Your task to perform on an android device: delete browsing data in the chrome app Image 0: 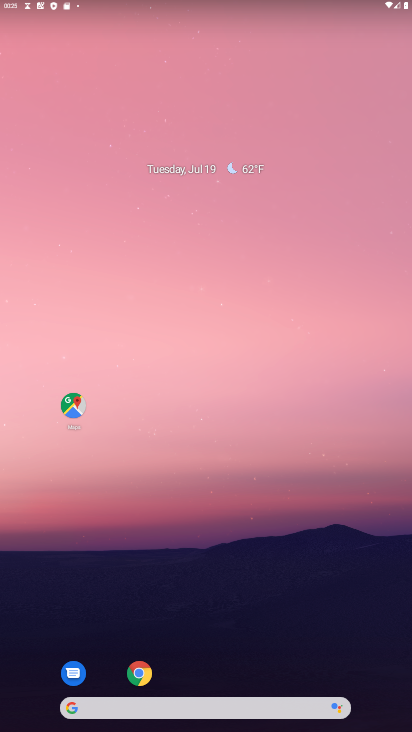
Step 0: drag from (200, 656) to (216, 123)
Your task to perform on an android device: delete browsing data in the chrome app Image 1: 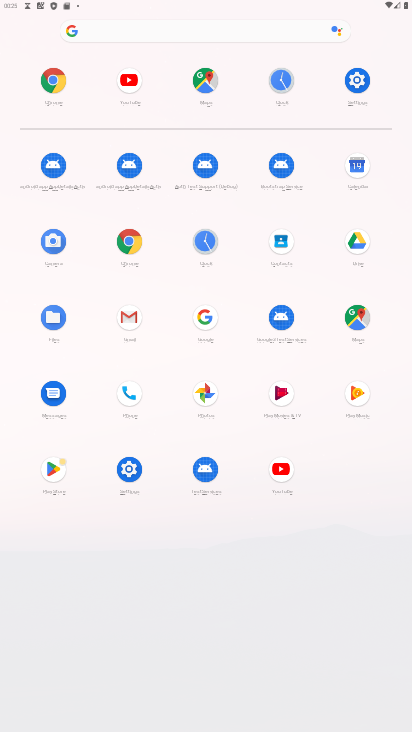
Step 1: click (128, 244)
Your task to perform on an android device: delete browsing data in the chrome app Image 2: 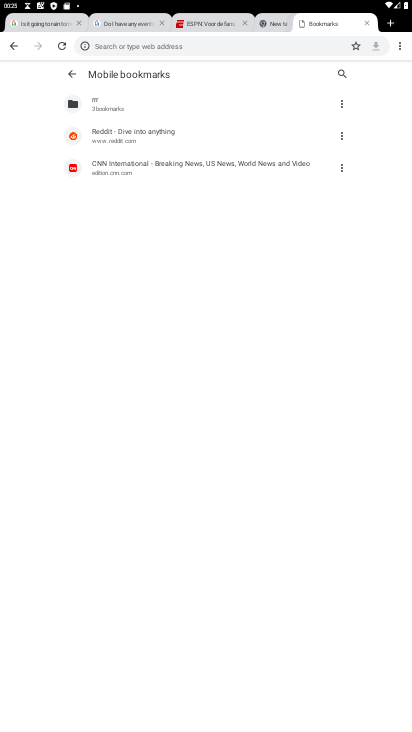
Step 2: click (400, 44)
Your task to perform on an android device: delete browsing data in the chrome app Image 3: 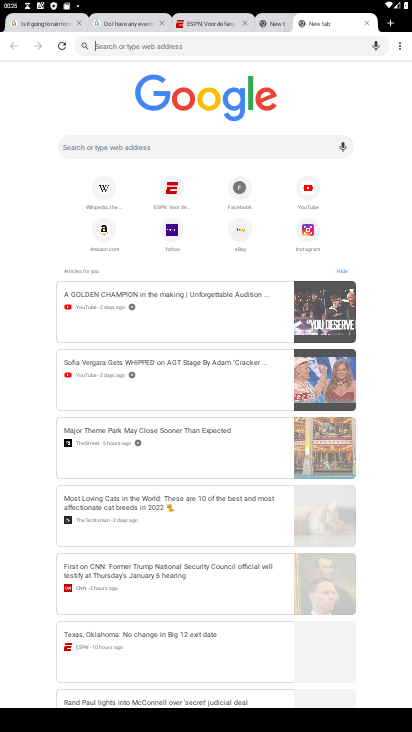
Step 3: click (402, 37)
Your task to perform on an android device: delete browsing data in the chrome app Image 4: 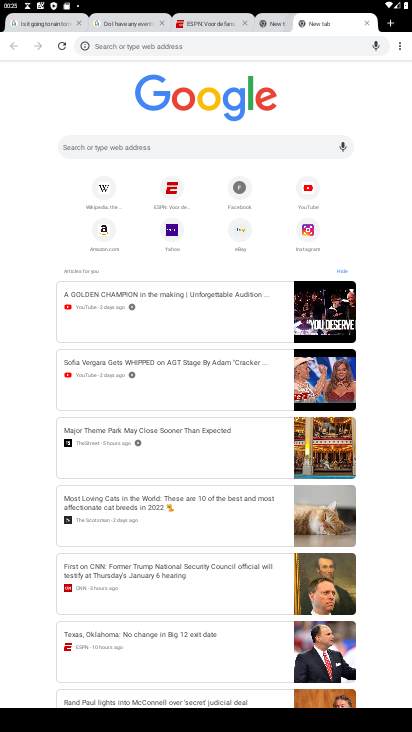
Step 4: click (402, 46)
Your task to perform on an android device: delete browsing data in the chrome app Image 5: 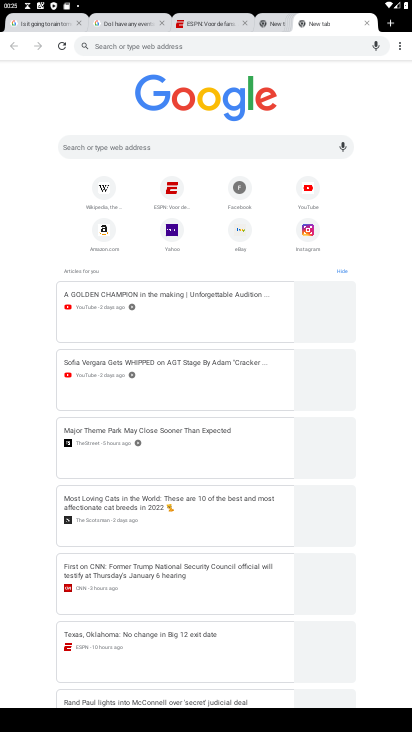
Step 5: click (402, 47)
Your task to perform on an android device: delete browsing data in the chrome app Image 6: 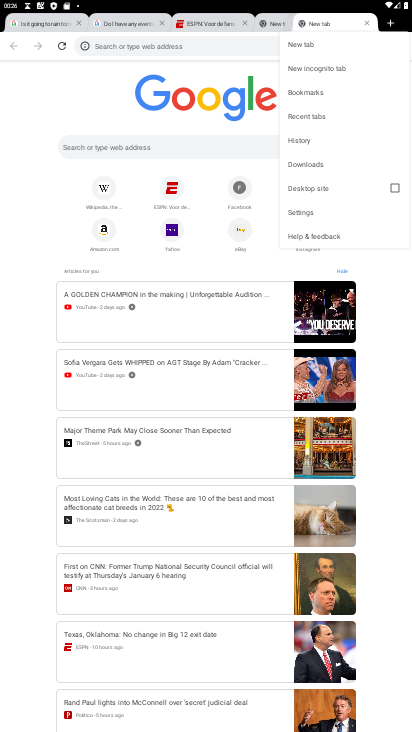
Step 6: click (326, 211)
Your task to perform on an android device: delete browsing data in the chrome app Image 7: 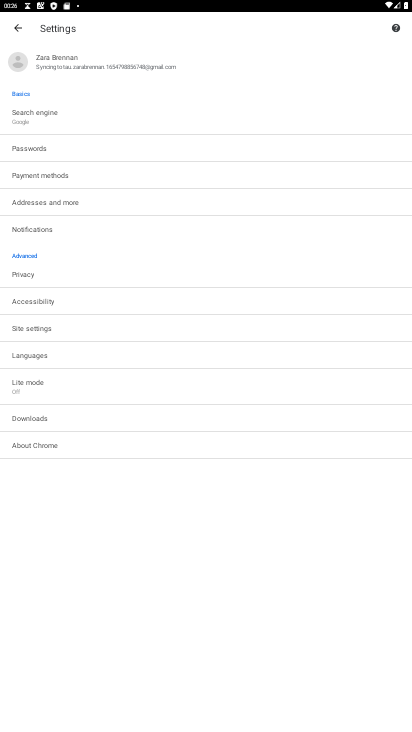
Step 7: click (59, 330)
Your task to perform on an android device: delete browsing data in the chrome app Image 8: 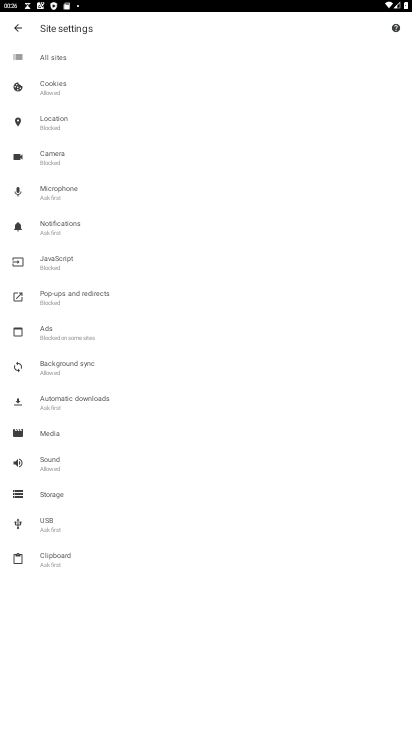
Step 8: click (70, 79)
Your task to perform on an android device: delete browsing data in the chrome app Image 9: 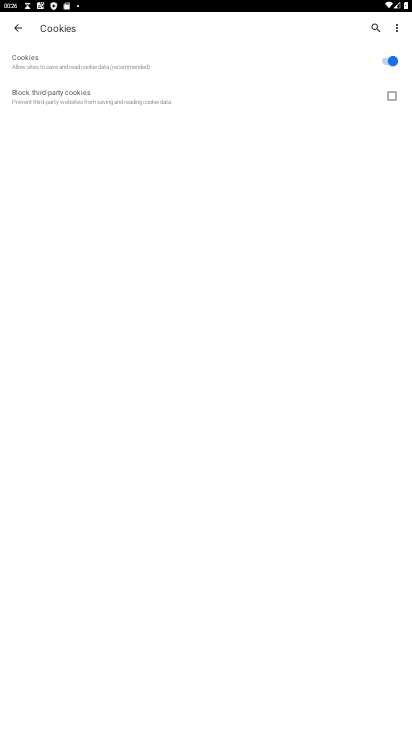
Step 9: click (22, 20)
Your task to perform on an android device: delete browsing data in the chrome app Image 10: 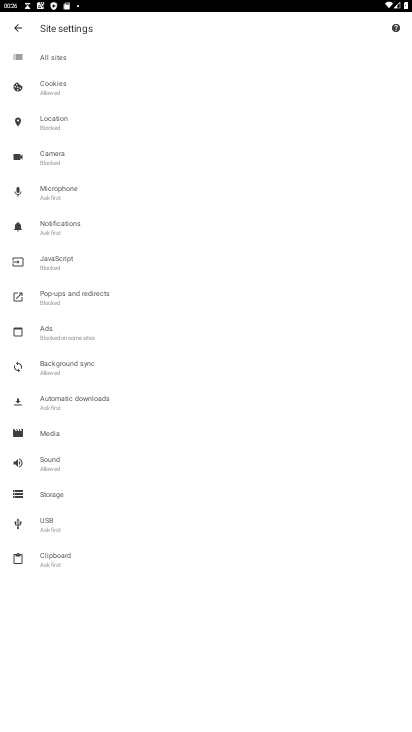
Step 10: click (12, 31)
Your task to perform on an android device: delete browsing data in the chrome app Image 11: 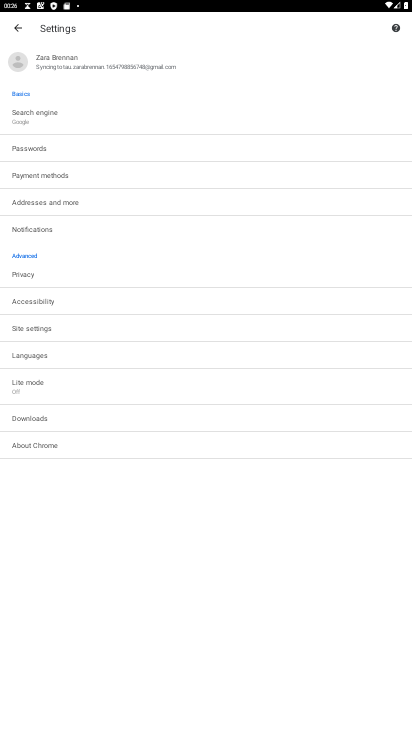
Step 11: click (34, 268)
Your task to perform on an android device: delete browsing data in the chrome app Image 12: 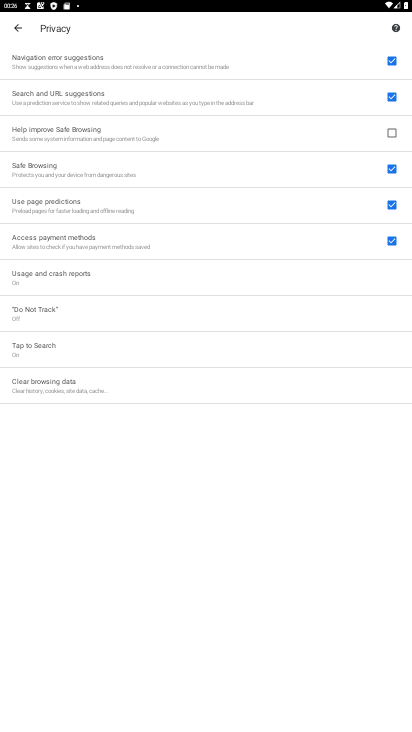
Step 12: click (109, 381)
Your task to perform on an android device: delete browsing data in the chrome app Image 13: 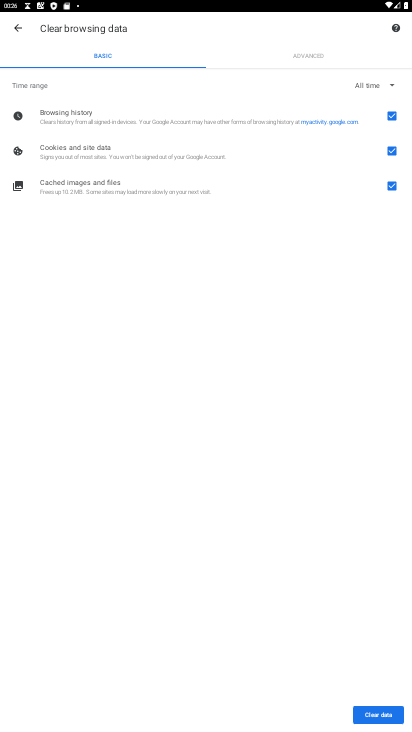
Step 13: click (381, 725)
Your task to perform on an android device: delete browsing data in the chrome app Image 14: 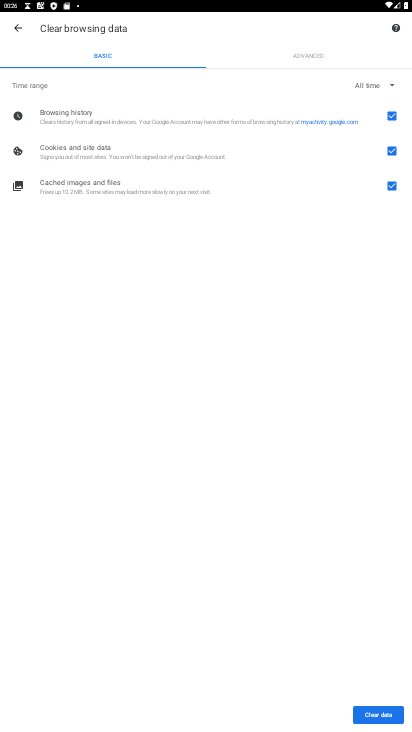
Step 14: click (379, 721)
Your task to perform on an android device: delete browsing data in the chrome app Image 15: 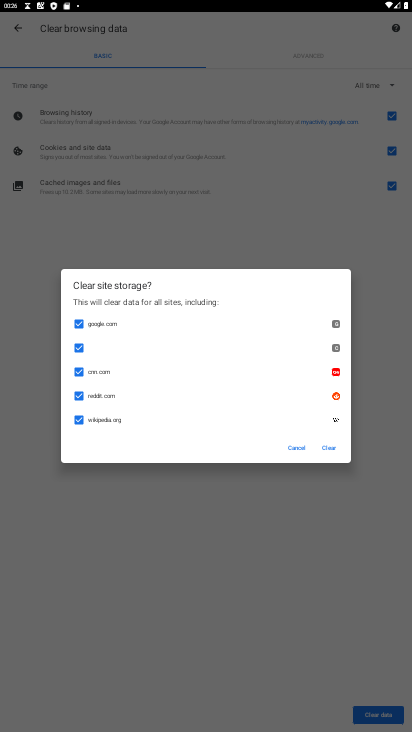
Step 15: click (328, 439)
Your task to perform on an android device: delete browsing data in the chrome app Image 16: 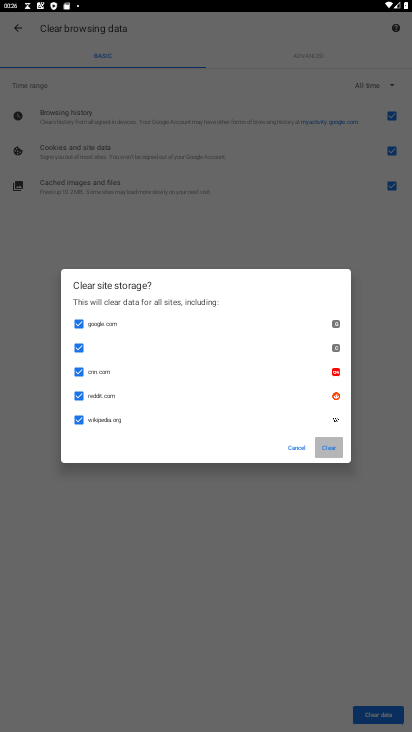
Step 16: click (328, 446)
Your task to perform on an android device: delete browsing data in the chrome app Image 17: 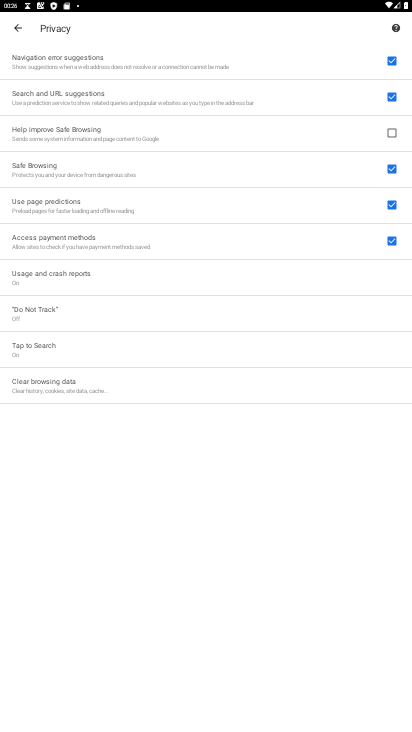
Step 17: task complete